Your task to perform on an android device: Open Yahoo.com Image 0: 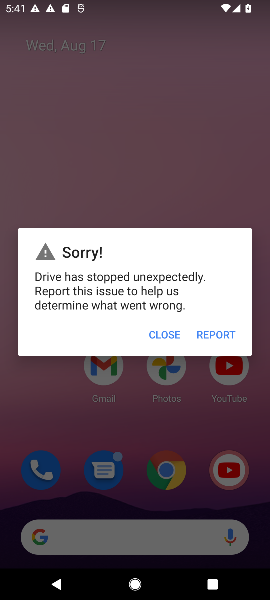
Step 0: click (167, 470)
Your task to perform on an android device: Open Yahoo.com Image 1: 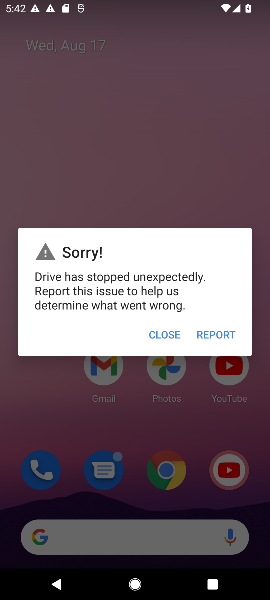
Step 1: click (166, 337)
Your task to perform on an android device: Open Yahoo.com Image 2: 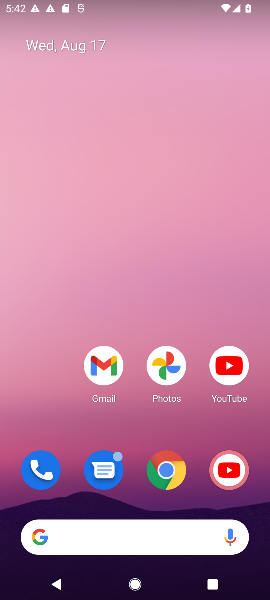
Step 2: click (168, 473)
Your task to perform on an android device: Open Yahoo.com Image 3: 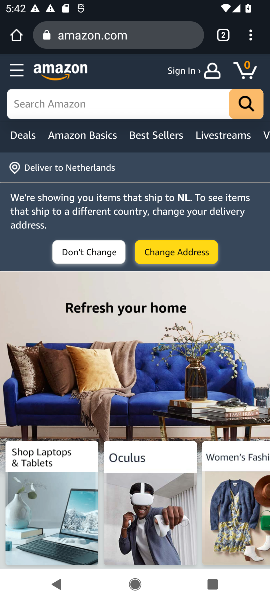
Step 3: click (115, 31)
Your task to perform on an android device: Open Yahoo.com Image 4: 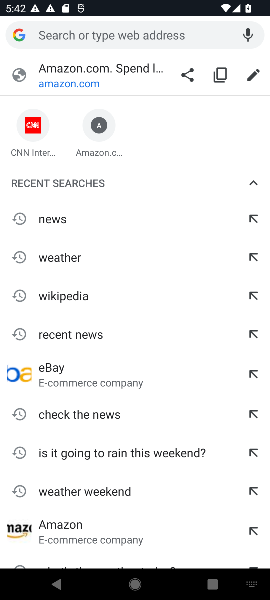
Step 4: type "yahoo.com"
Your task to perform on an android device: Open Yahoo.com Image 5: 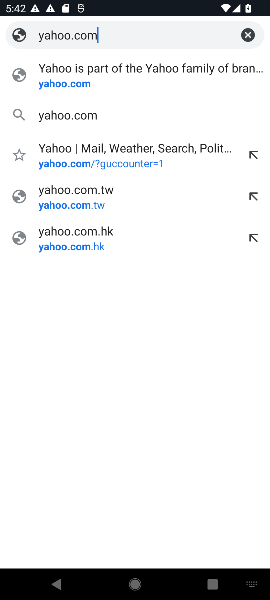
Step 5: click (83, 74)
Your task to perform on an android device: Open Yahoo.com Image 6: 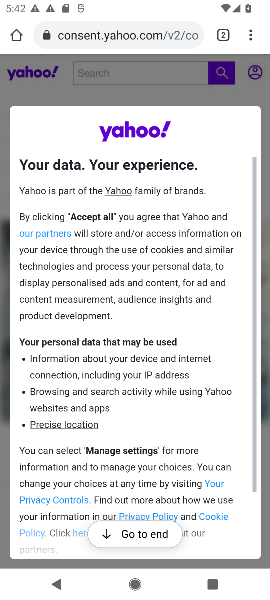
Step 6: task complete